Your task to perform on an android device: find photos in the google photos app Image 0: 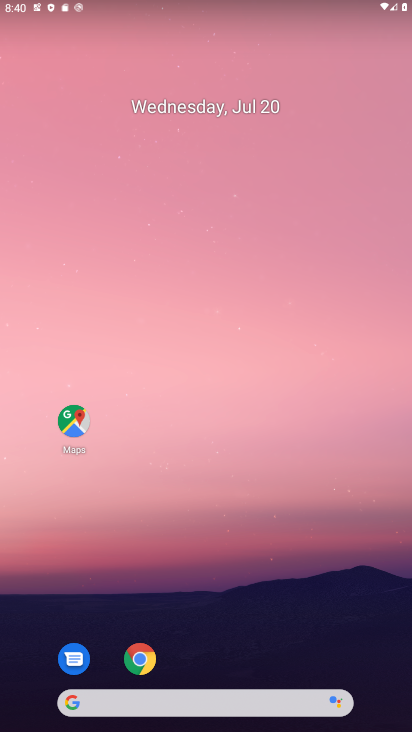
Step 0: drag from (278, 635) to (278, 123)
Your task to perform on an android device: find photos in the google photos app Image 1: 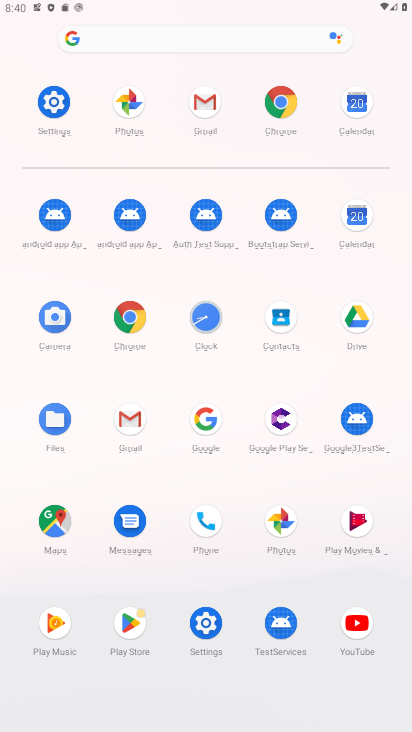
Step 1: click (273, 515)
Your task to perform on an android device: find photos in the google photos app Image 2: 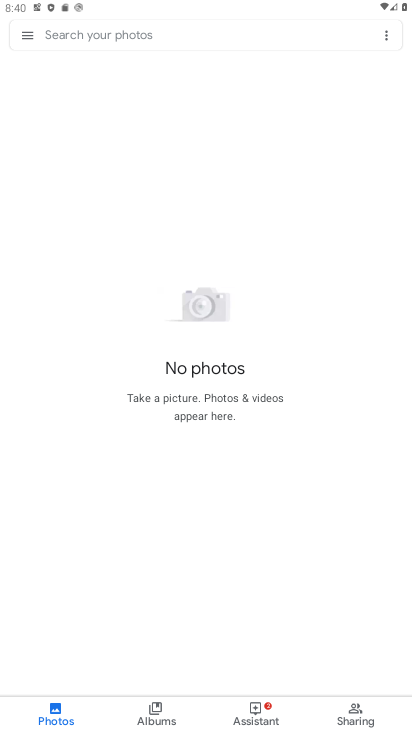
Step 2: click (57, 711)
Your task to perform on an android device: find photos in the google photos app Image 3: 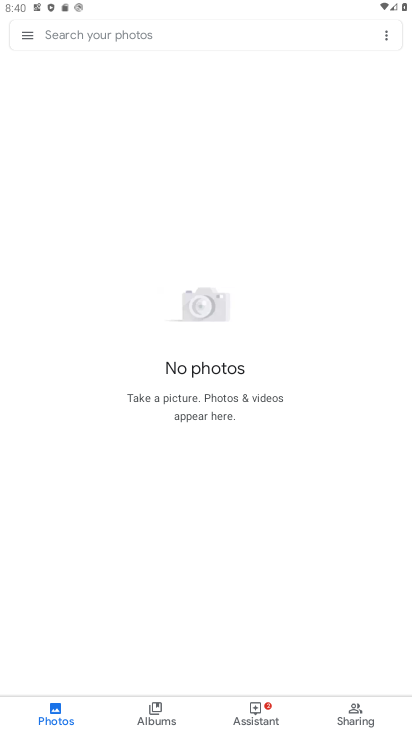
Step 3: task complete